Your task to perform on an android device: snooze an email in the gmail app Image 0: 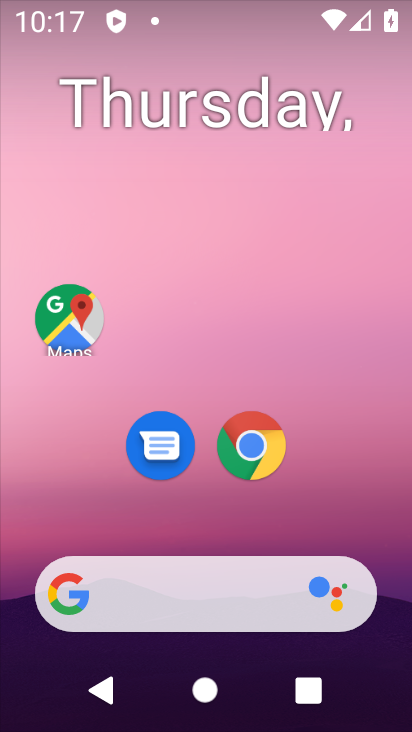
Step 0: drag from (231, 718) to (213, 0)
Your task to perform on an android device: snooze an email in the gmail app Image 1: 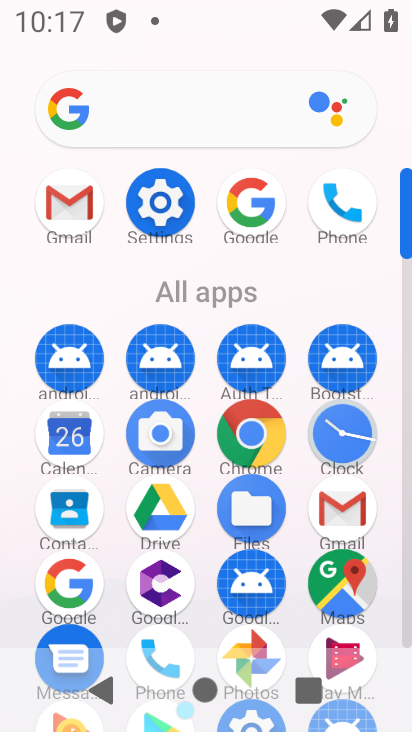
Step 1: click (348, 506)
Your task to perform on an android device: snooze an email in the gmail app Image 2: 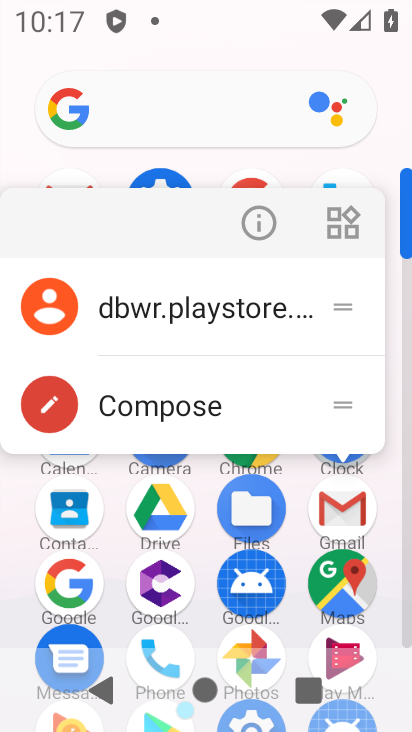
Step 2: click (339, 511)
Your task to perform on an android device: snooze an email in the gmail app Image 3: 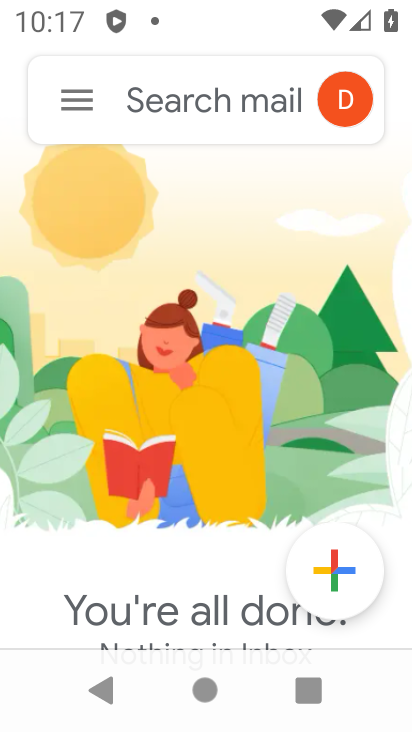
Step 3: task complete